Your task to perform on an android device: Find coffee shops on Maps Image 0: 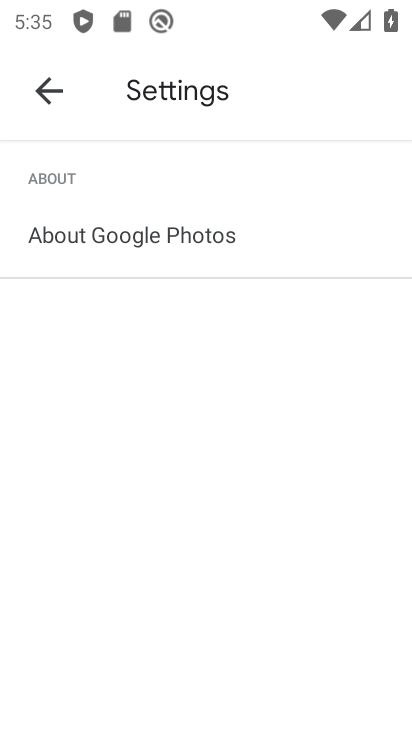
Step 0: press home button
Your task to perform on an android device: Find coffee shops on Maps Image 1: 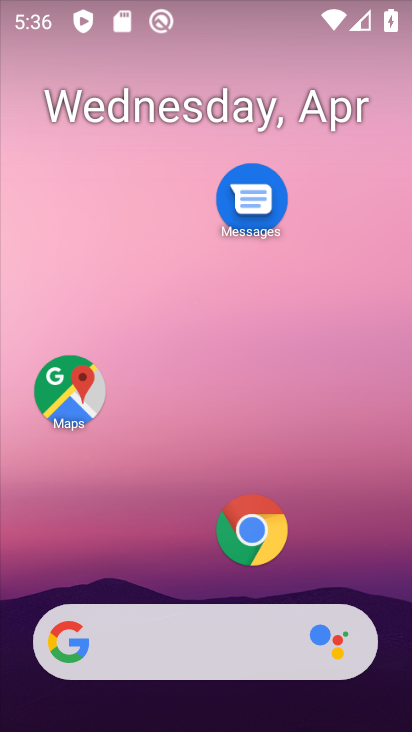
Step 1: click (66, 390)
Your task to perform on an android device: Find coffee shops on Maps Image 2: 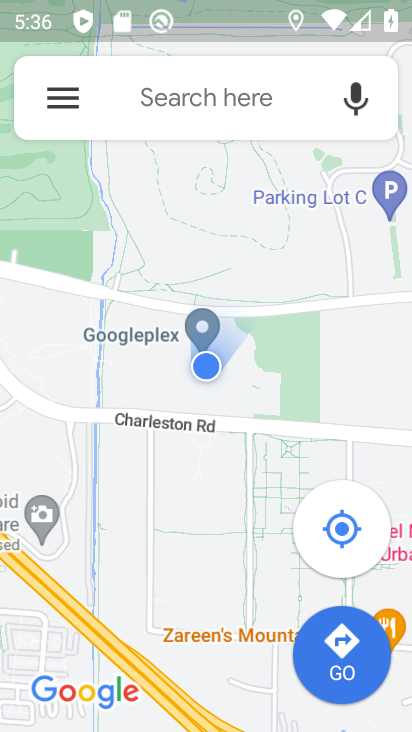
Step 2: click (233, 99)
Your task to perform on an android device: Find coffee shops on Maps Image 3: 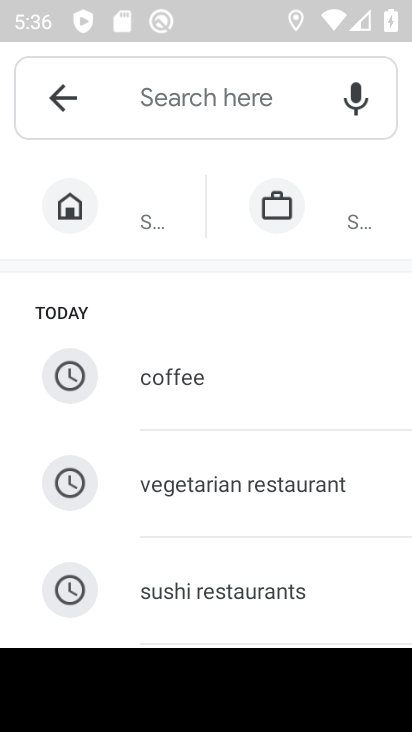
Step 3: type "coffee shops"
Your task to perform on an android device: Find coffee shops on Maps Image 4: 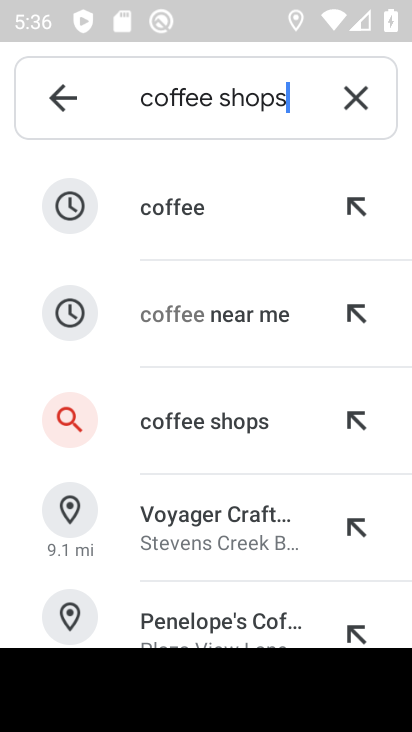
Step 4: click (226, 423)
Your task to perform on an android device: Find coffee shops on Maps Image 5: 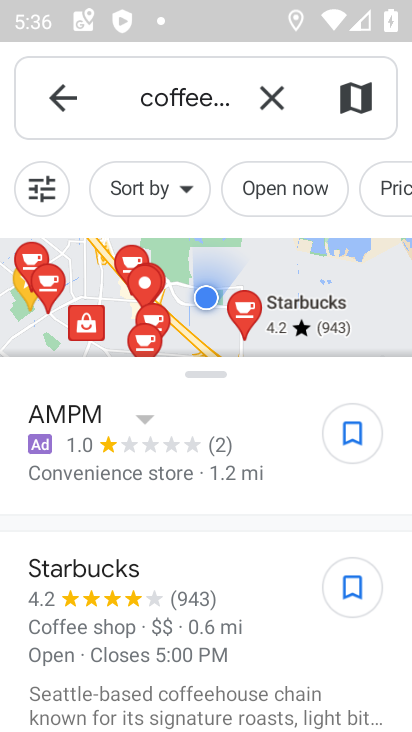
Step 5: task complete